Your task to perform on an android device: What's the weather like in San Francisco? Image 0: 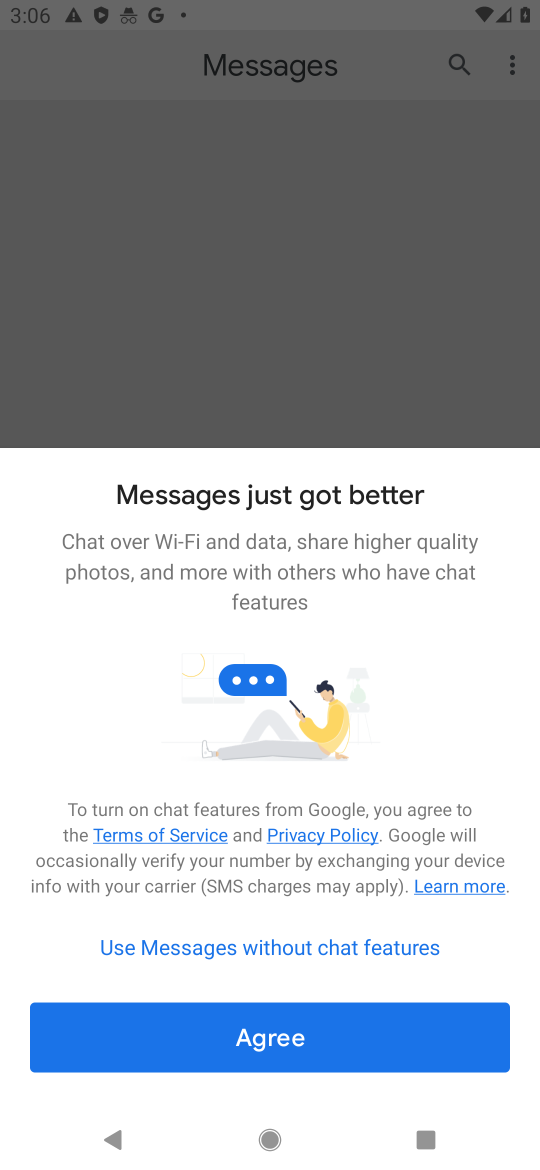
Step 0: press home button
Your task to perform on an android device: What's the weather like in San Francisco? Image 1: 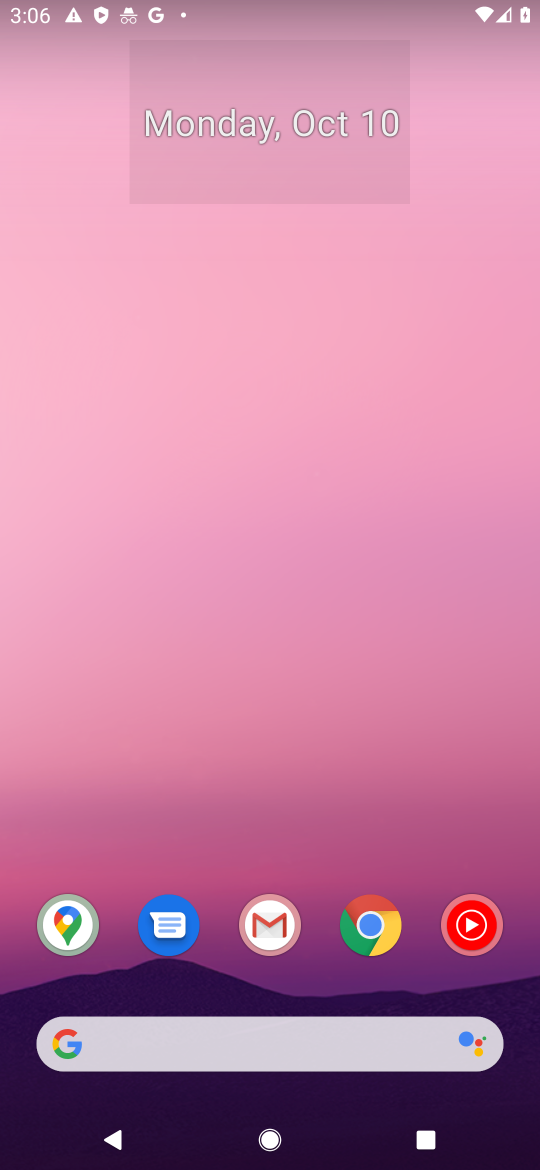
Step 1: click (443, 643)
Your task to perform on an android device: What's the weather like in San Francisco? Image 2: 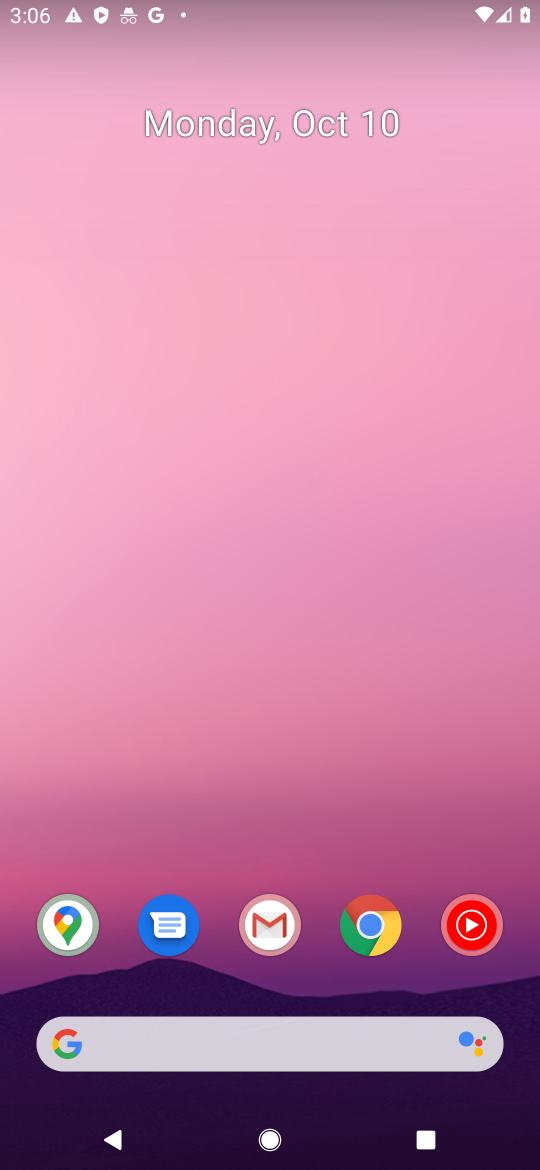
Step 2: click (347, 935)
Your task to perform on an android device: What's the weather like in San Francisco? Image 3: 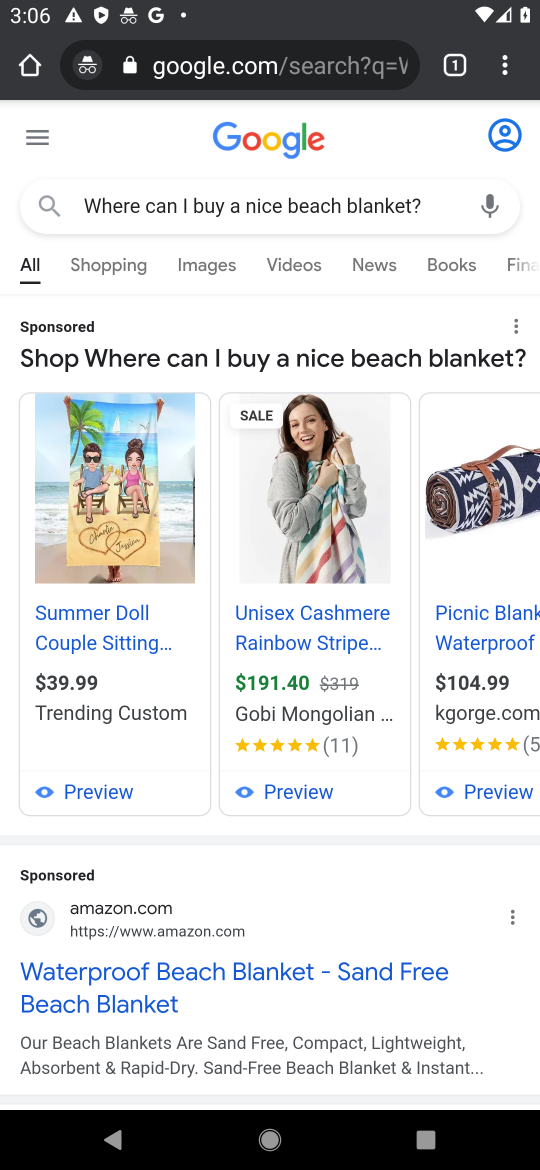
Step 3: click (293, 210)
Your task to perform on an android device: What's the weather like in San Francisco? Image 4: 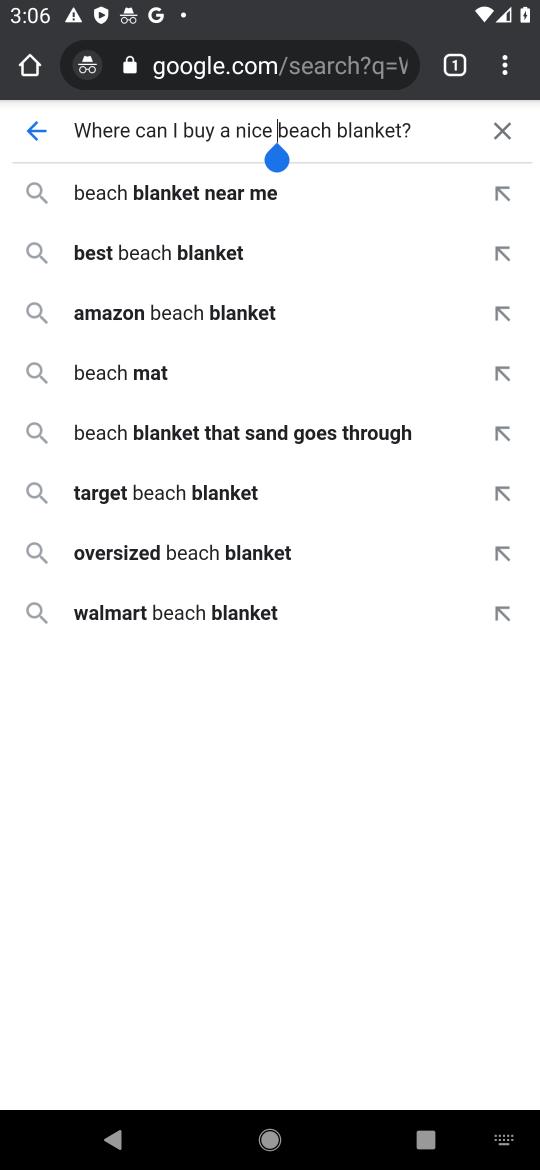
Step 4: click (500, 137)
Your task to perform on an android device: What's the weather like in San Francisco? Image 5: 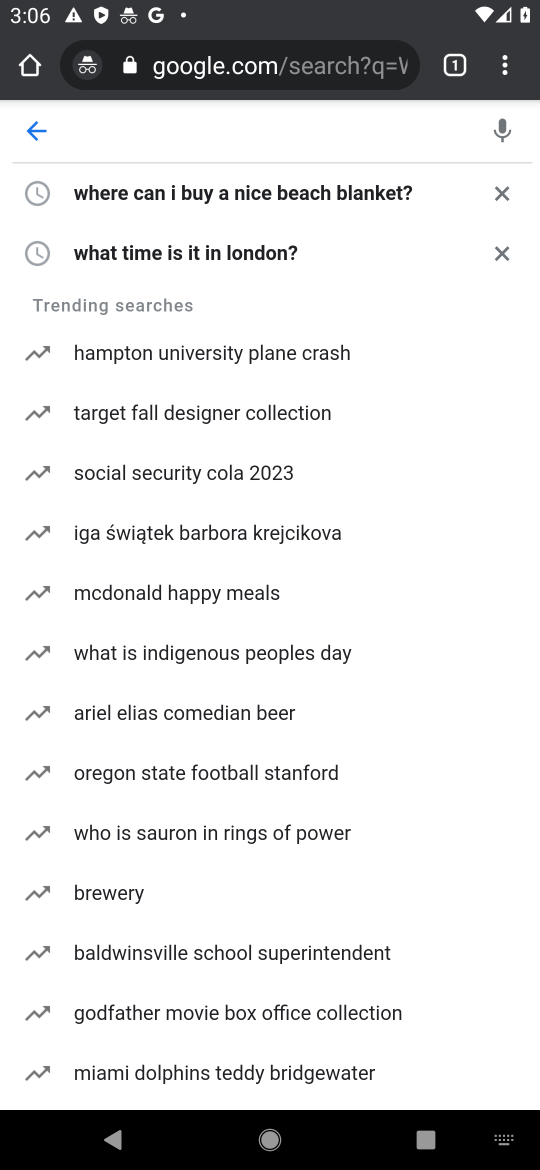
Step 5: type "What's the weather like in San Francisco?"
Your task to perform on an android device: What's the weather like in San Francisco? Image 6: 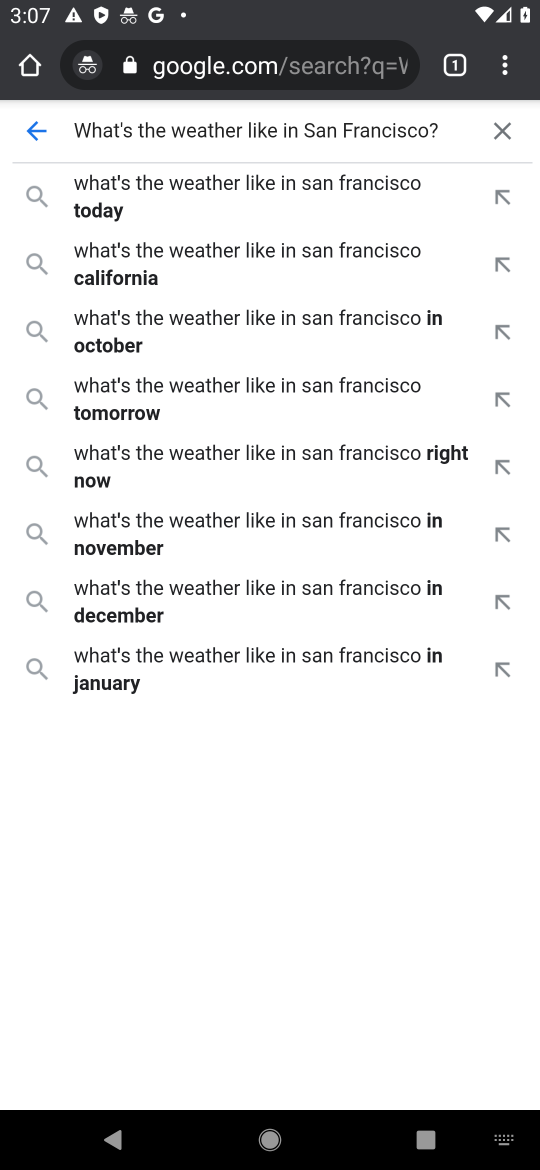
Step 6: press enter
Your task to perform on an android device: What's the weather like in San Francisco? Image 7: 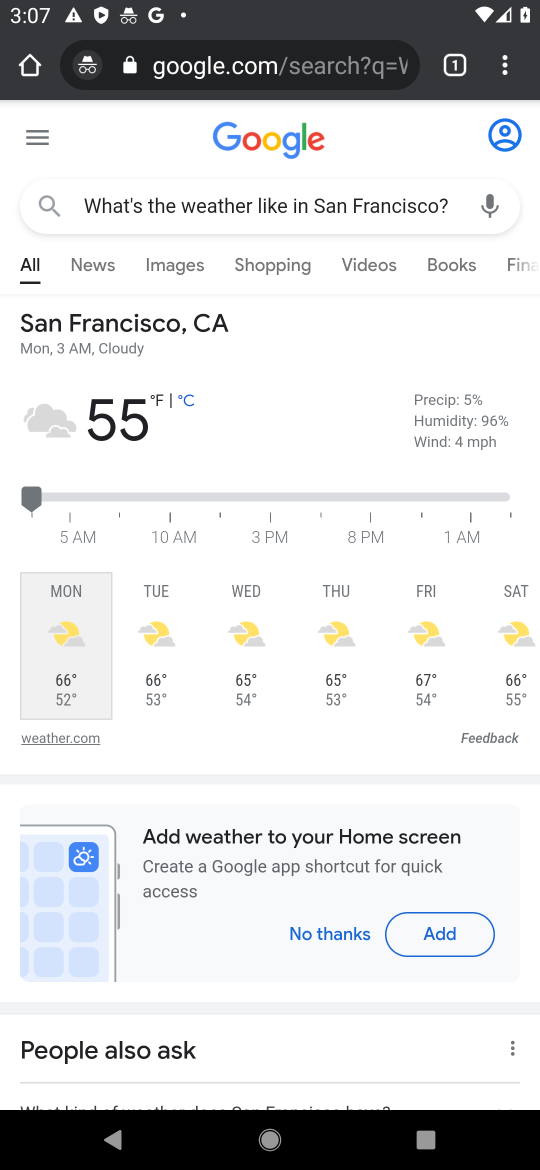
Step 7: task complete